Your task to perform on an android device: Open privacy settings Image 0: 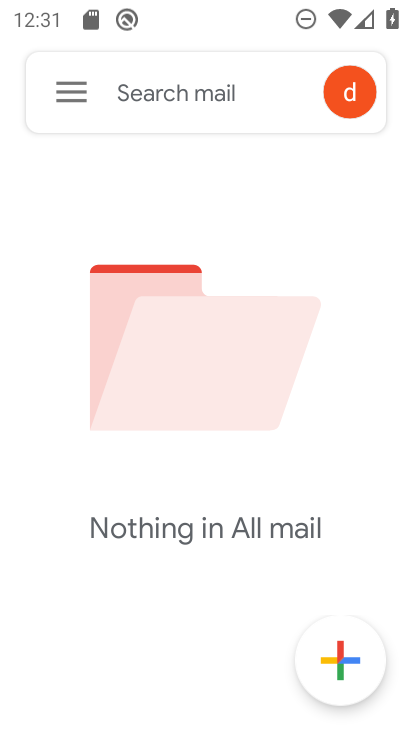
Step 0: press home button
Your task to perform on an android device: Open privacy settings Image 1: 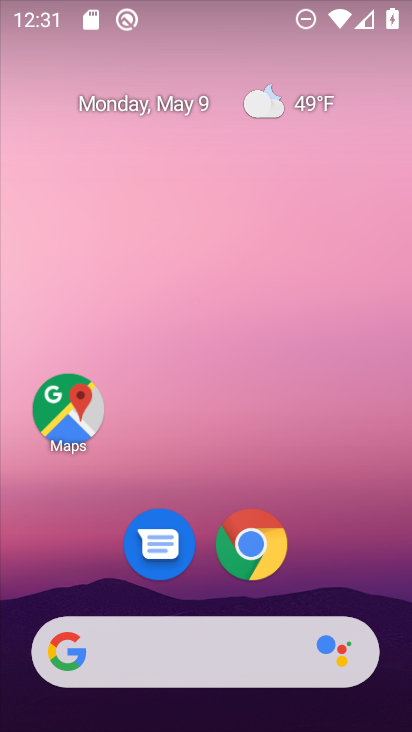
Step 1: drag from (374, 538) to (389, 128)
Your task to perform on an android device: Open privacy settings Image 2: 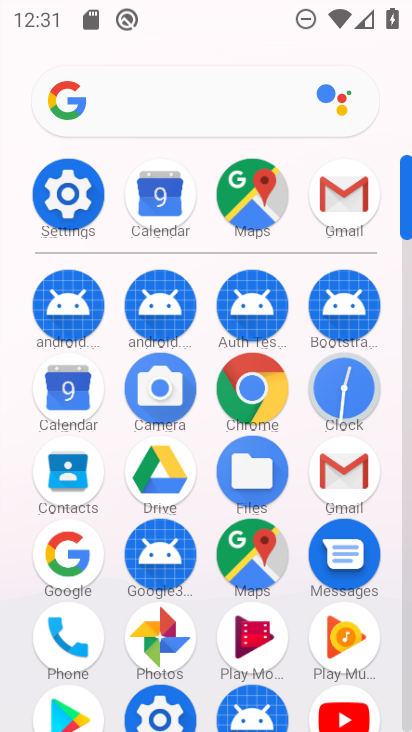
Step 2: click (54, 192)
Your task to perform on an android device: Open privacy settings Image 3: 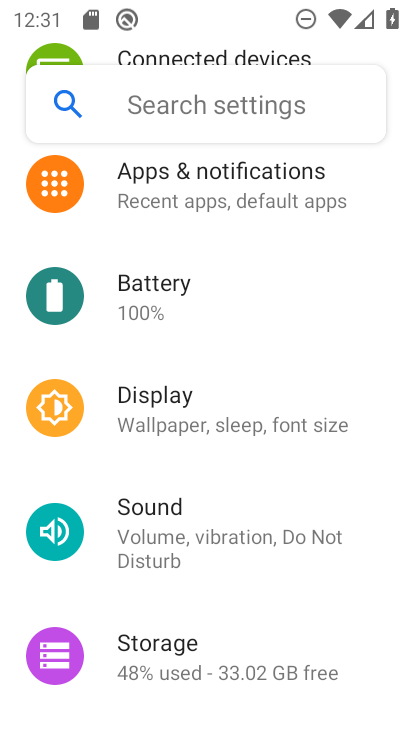
Step 3: drag from (194, 288) to (251, 612)
Your task to perform on an android device: Open privacy settings Image 4: 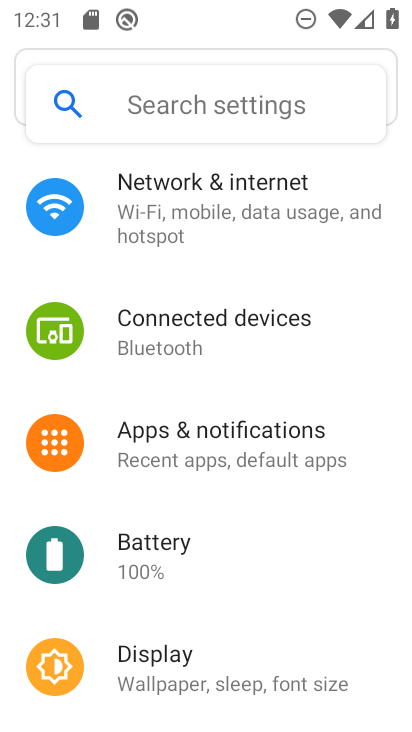
Step 4: drag from (208, 560) to (212, 172)
Your task to perform on an android device: Open privacy settings Image 5: 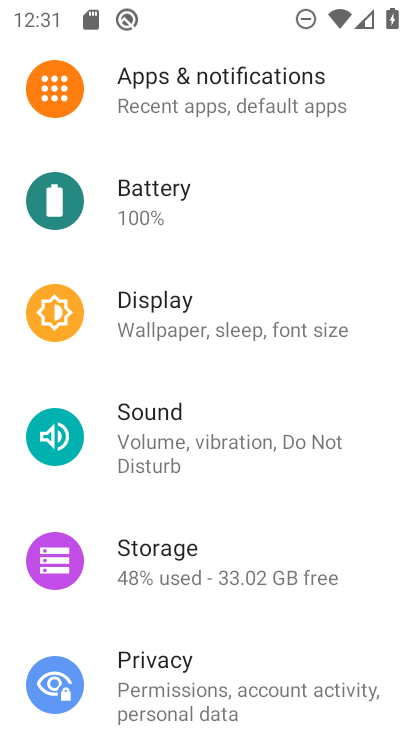
Step 5: click (170, 666)
Your task to perform on an android device: Open privacy settings Image 6: 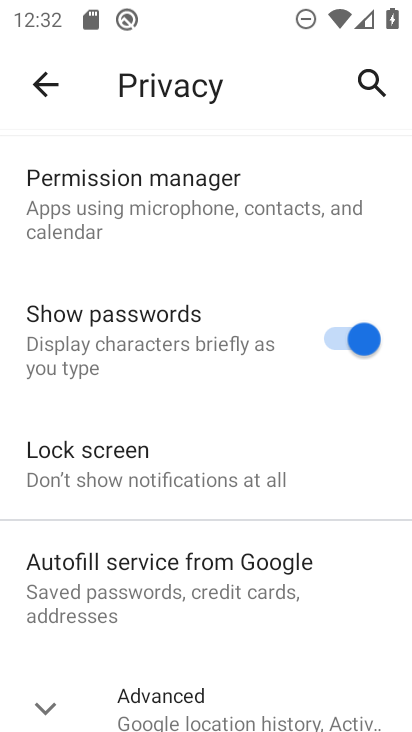
Step 6: task complete